Your task to perform on an android device: Go to privacy settings Image 0: 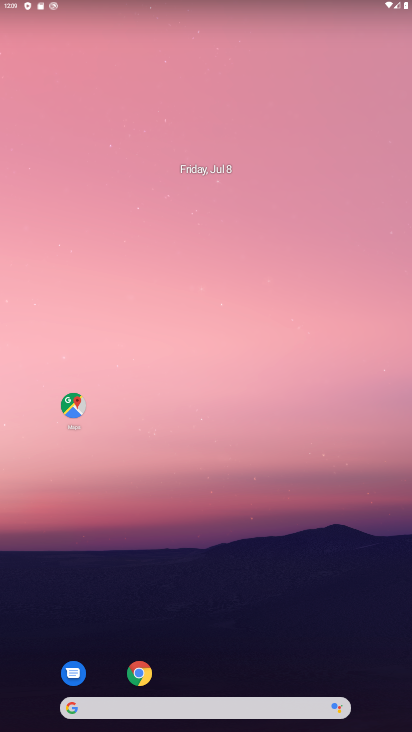
Step 0: drag from (166, 672) to (216, 246)
Your task to perform on an android device: Go to privacy settings Image 1: 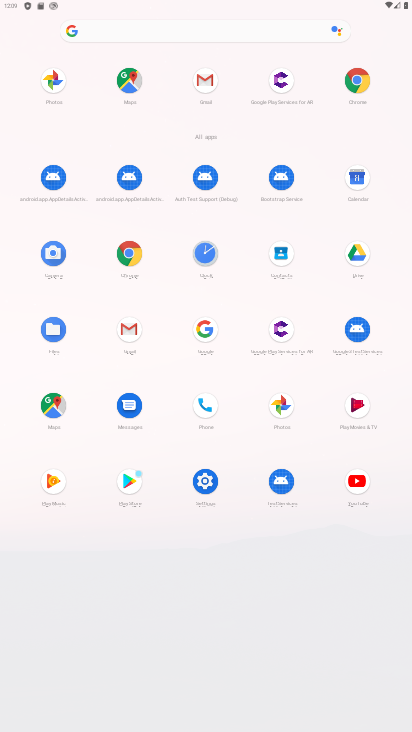
Step 1: click (201, 485)
Your task to perform on an android device: Go to privacy settings Image 2: 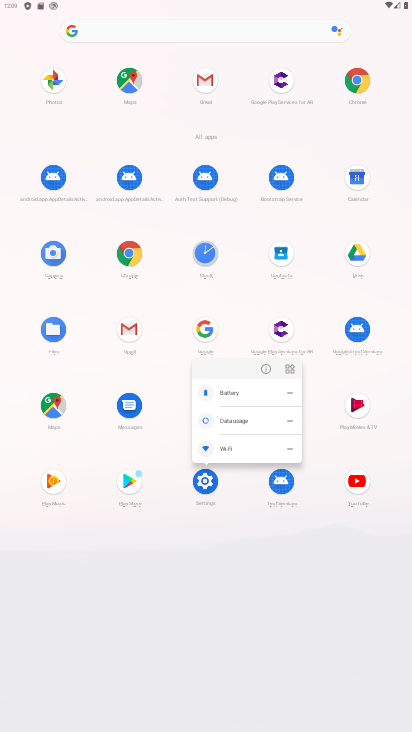
Step 2: click (211, 482)
Your task to perform on an android device: Go to privacy settings Image 3: 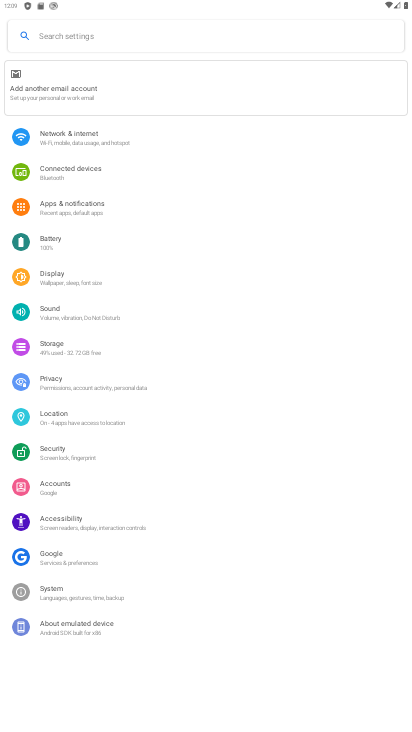
Step 3: click (60, 381)
Your task to perform on an android device: Go to privacy settings Image 4: 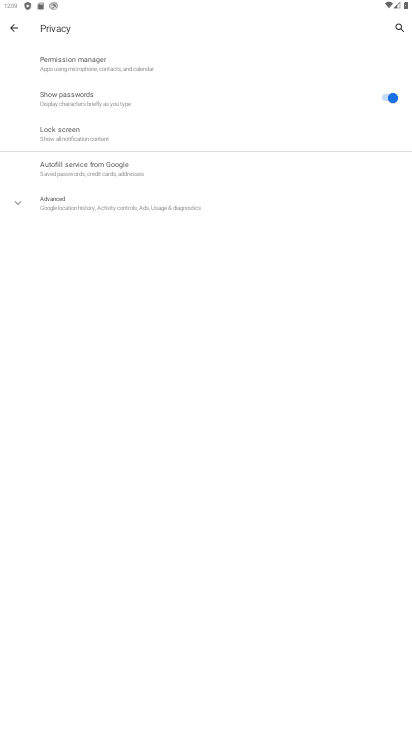
Step 4: task complete